Your task to perform on an android device: star an email in the gmail app Image 0: 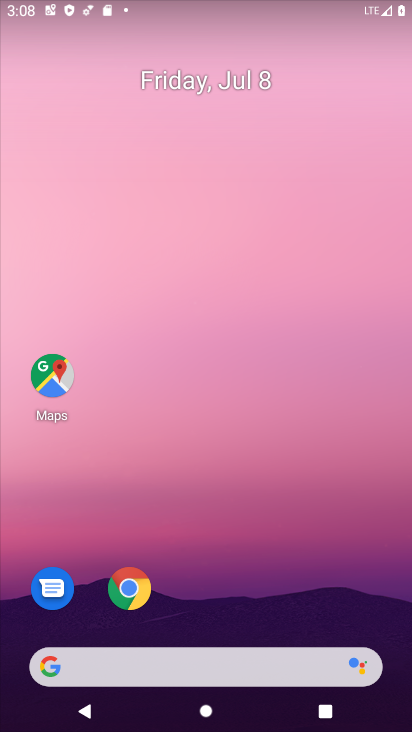
Step 0: press home button
Your task to perform on an android device: star an email in the gmail app Image 1: 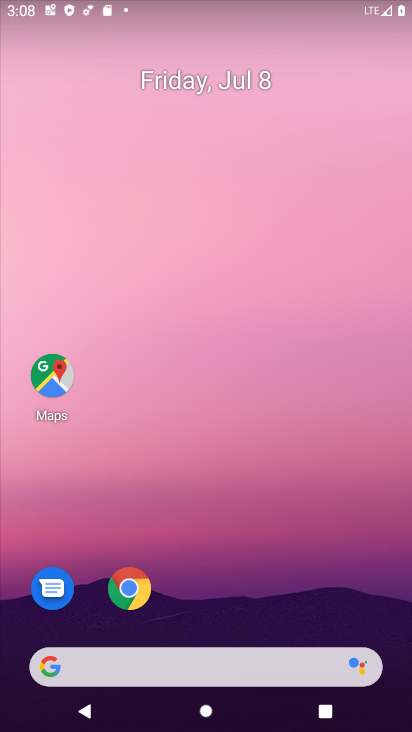
Step 1: drag from (197, 657) to (340, 99)
Your task to perform on an android device: star an email in the gmail app Image 2: 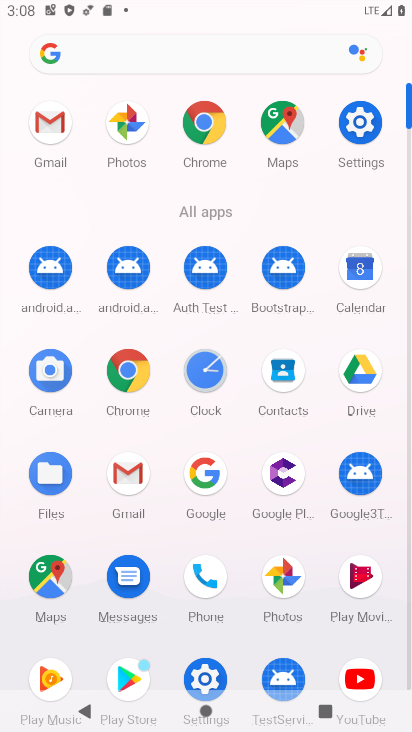
Step 2: click (57, 127)
Your task to perform on an android device: star an email in the gmail app Image 3: 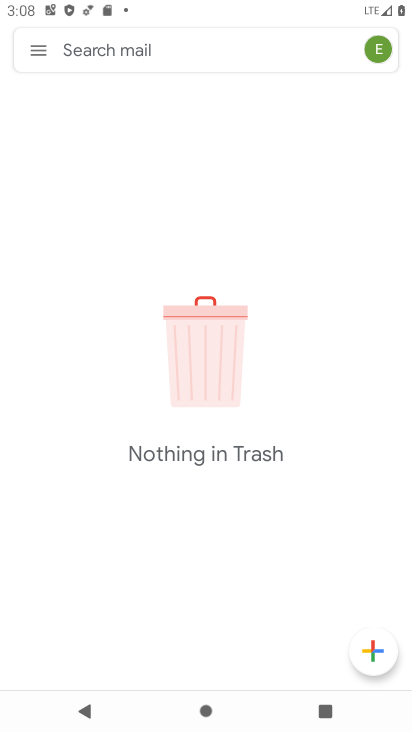
Step 3: click (39, 52)
Your task to perform on an android device: star an email in the gmail app Image 4: 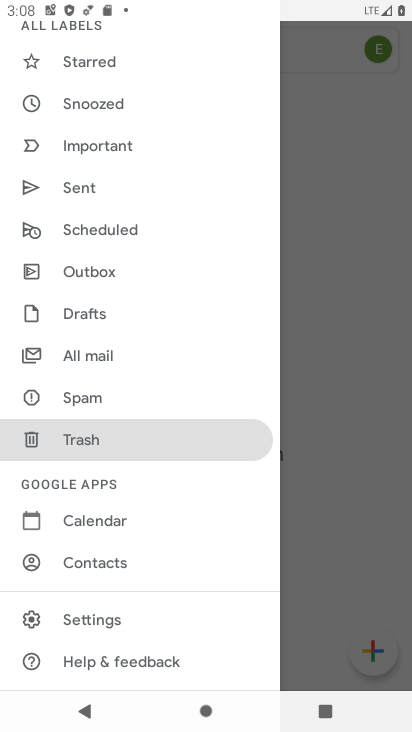
Step 4: drag from (170, 107) to (184, 543)
Your task to perform on an android device: star an email in the gmail app Image 5: 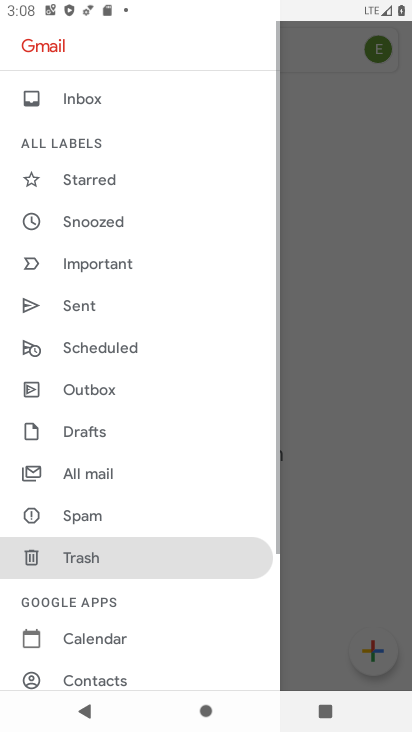
Step 5: click (98, 97)
Your task to perform on an android device: star an email in the gmail app Image 6: 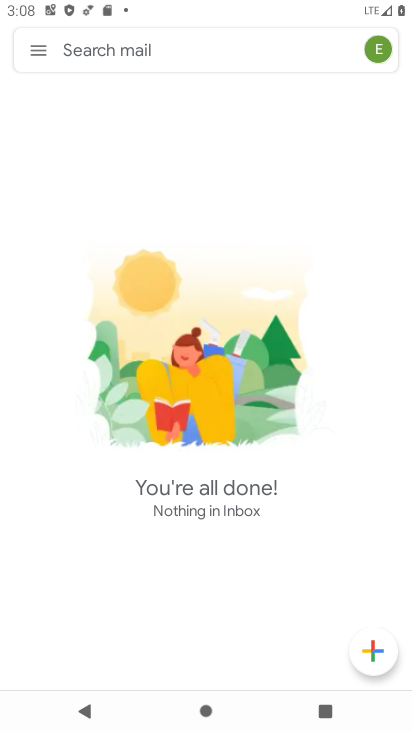
Step 6: task complete